Your task to perform on an android device: turn on data saver in the chrome app Image 0: 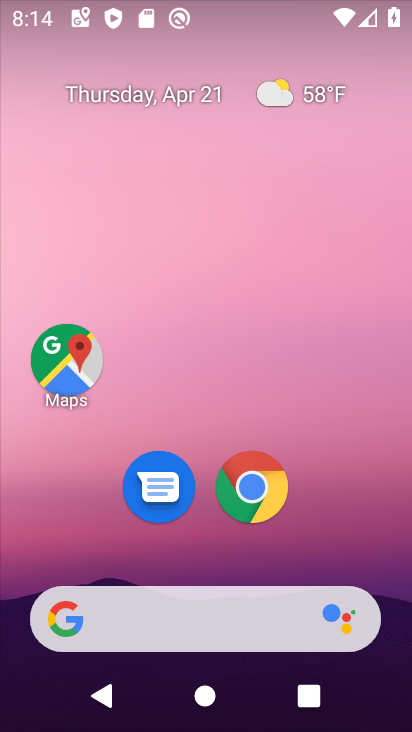
Step 0: drag from (315, 496) to (285, 106)
Your task to perform on an android device: turn on data saver in the chrome app Image 1: 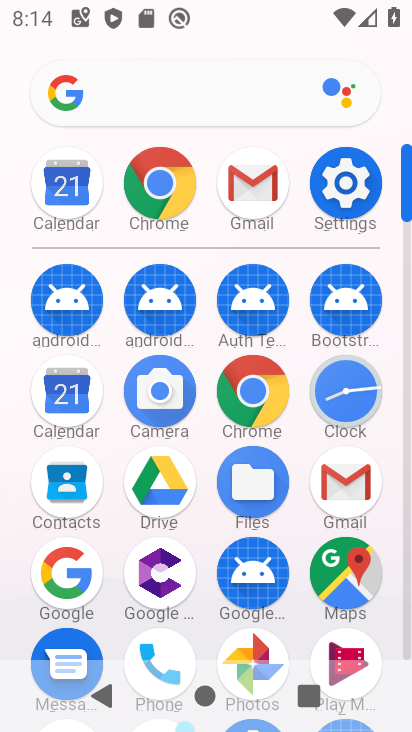
Step 1: click (252, 387)
Your task to perform on an android device: turn on data saver in the chrome app Image 2: 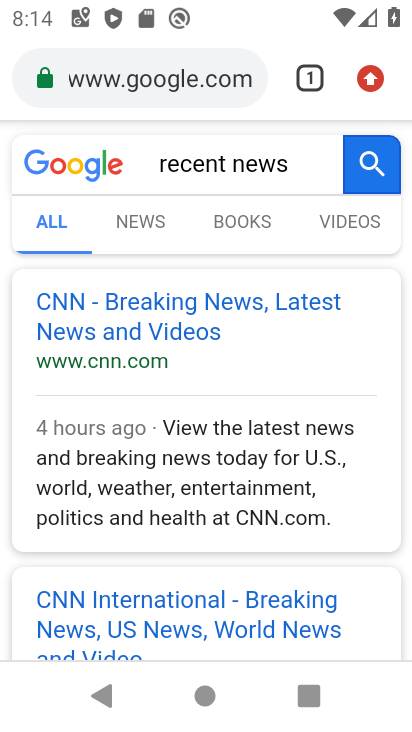
Step 2: drag from (365, 69) to (197, 544)
Your task to perform on an android device: turn on data saver in the chrome app Image 3: 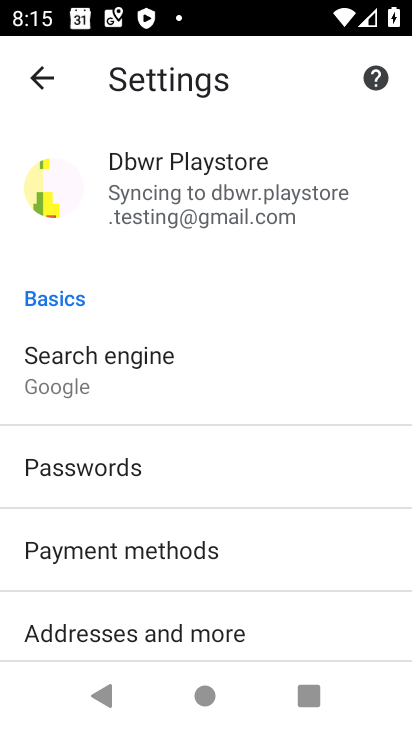
Step 3: drag from (299, 497) to (322, 127)
Your task to perform on an android device: turn on data saver in the chrome app Image 4: 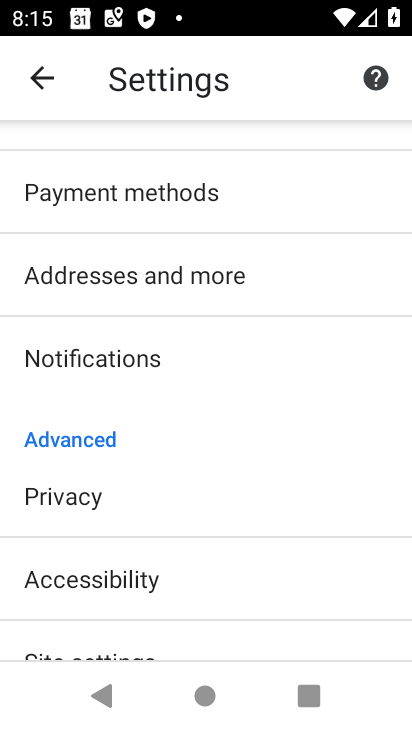
Step 4: drag from (286, 511) to (293, 102)
Your task to perform on an android device: turn on data saver in the chrome app Image 5: 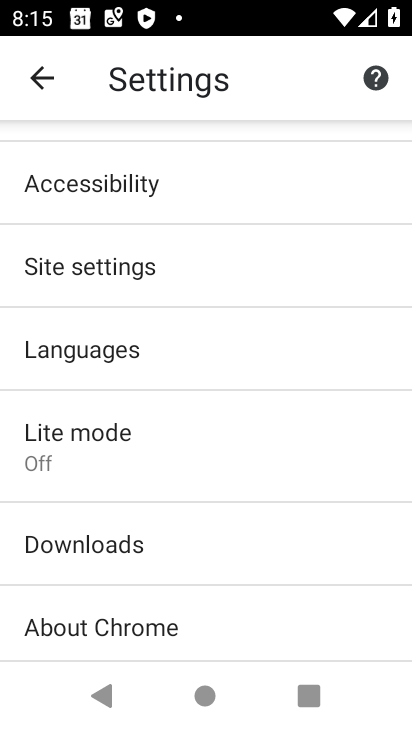
Step 5: click (158, 449)
Your task to perform on an android device: turn on data saver in the chrome app Image 6: 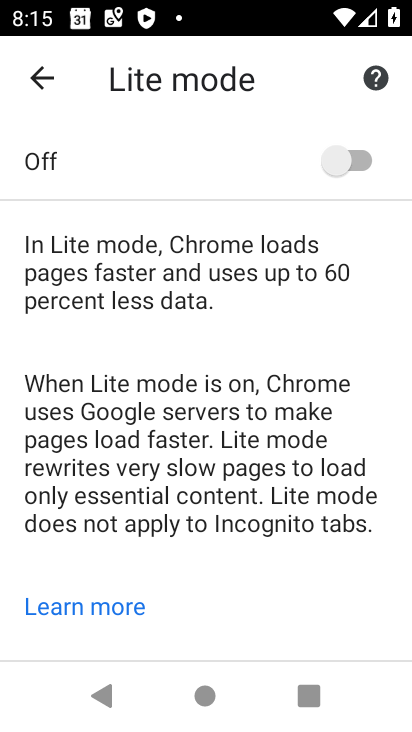
Step 6: click (344, 138)
Your task to perform on an android device: turn on data saver in the chrome app Image 7: 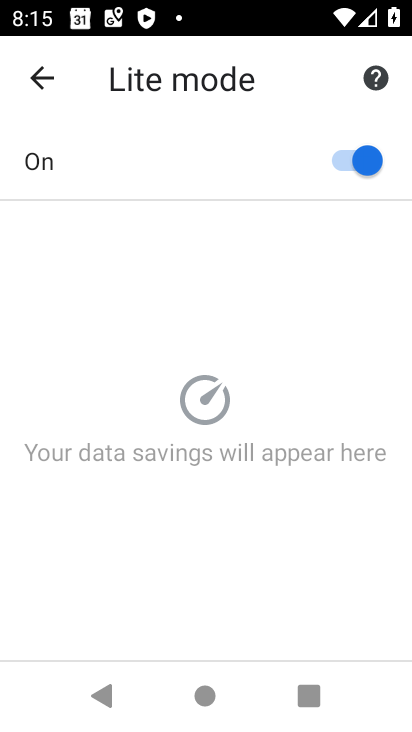
Step 7: task complete